Your task to perform on an android device: Do I have any events tomorrow? Image 0: 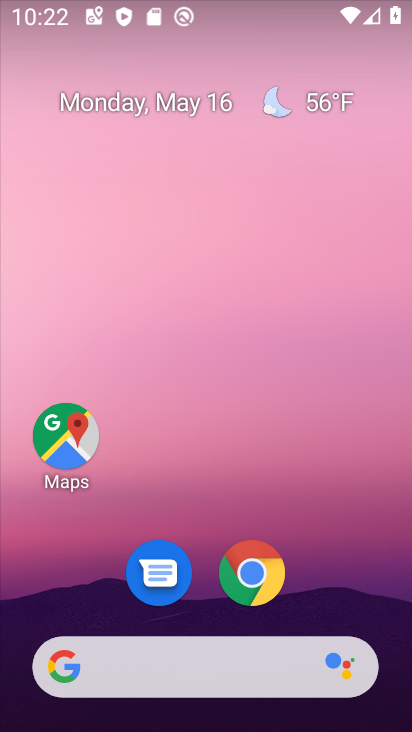
Step 0: drag from (273, 611) to (360, 62)
Your task to perform on an android device: Do I have any events tomorrow? Image 1: 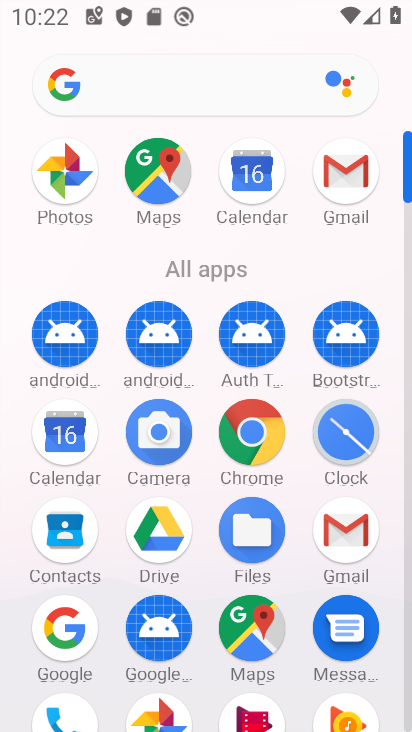
Step 1: click (94, 424)
Your task to perform on an android device: Do I have any events tomorrow? Image 2: 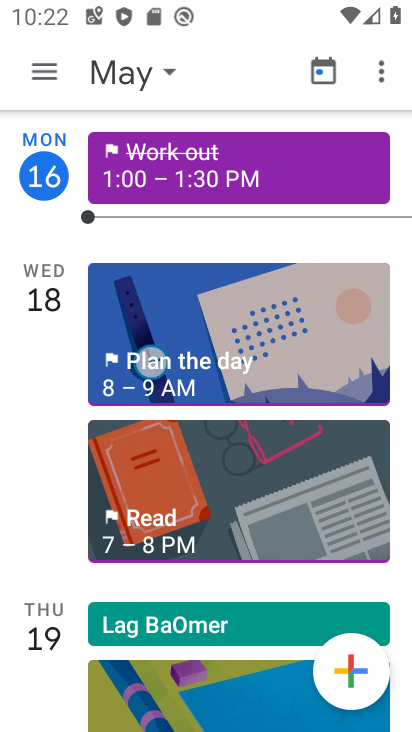
Step 2: task complete